Your task to perform on an android device: clear history in the chrome app Image 0: 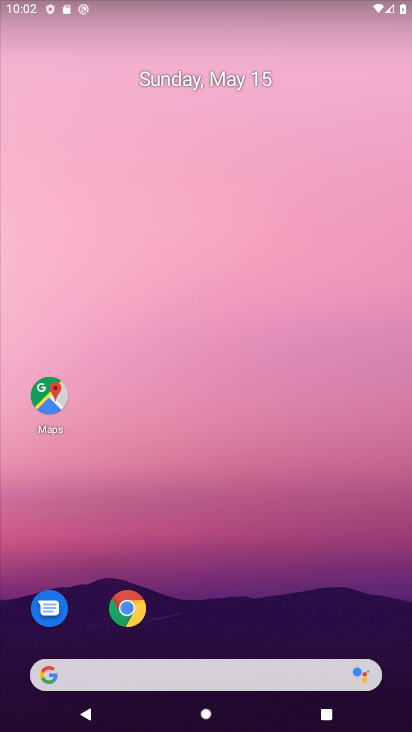
Step 0: click (142, 623)
Your task to perform on an android device: clear history in the chrome app Image 1: 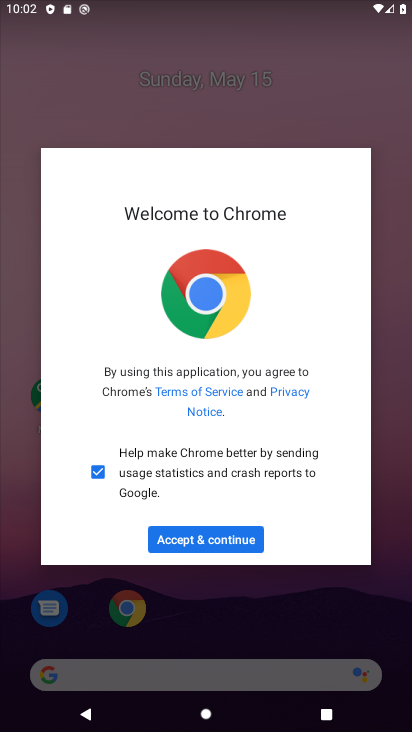
Step 1: click (257, 557)
Your task to perform on an android device: clear history in the chrome app Image 2: 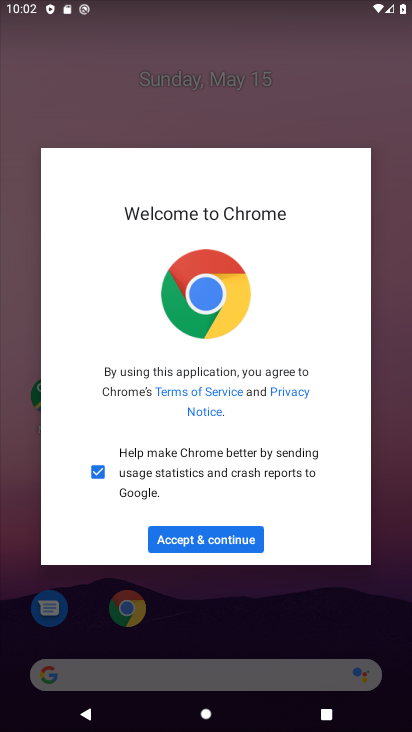
Step 2: click (243, 543)
Your task to perform on an android device: clear history in the chrome app Image 3: 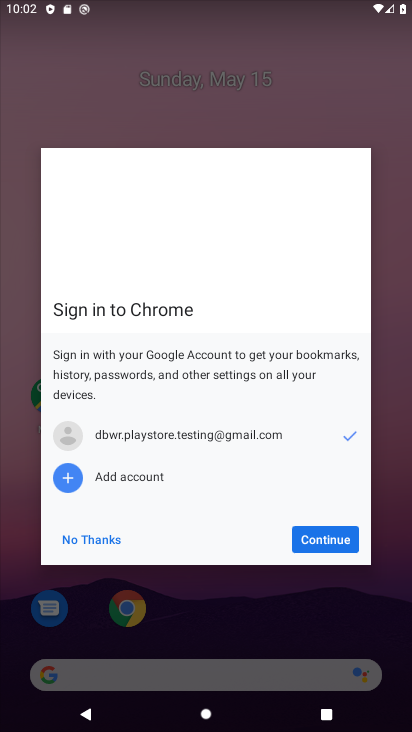
Step 3: click (322, 532)
Your task to perform on an android device: clear history in the chrome app Image 4: 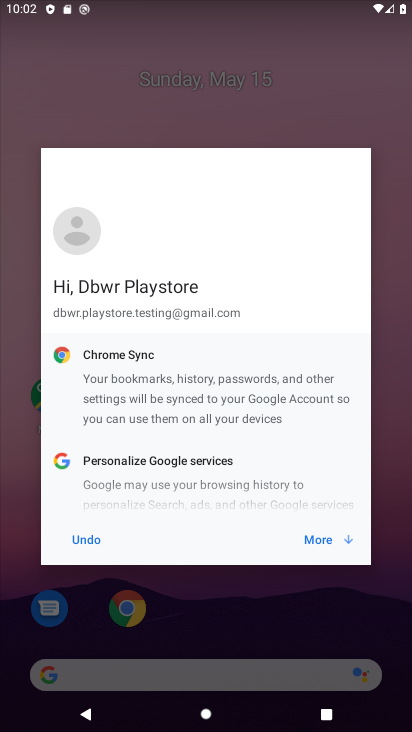
Step 4: click (333, 550)
Your task to perform on an android device: clear history in the chrome app Image 5: 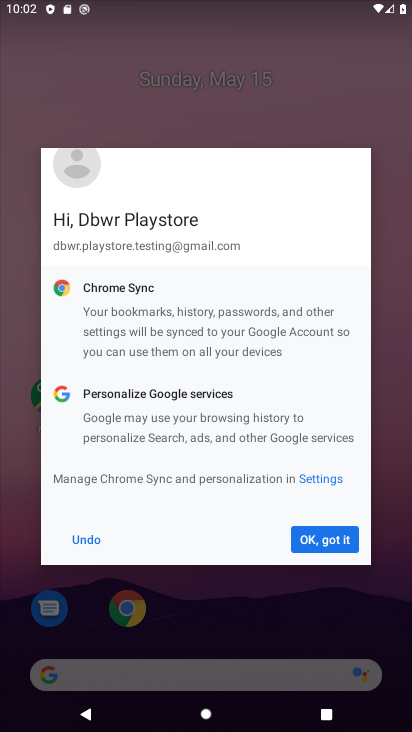
Step 5: click (319, 536)
Your task to perform on an android device: clear history in the chrome app Image 6: 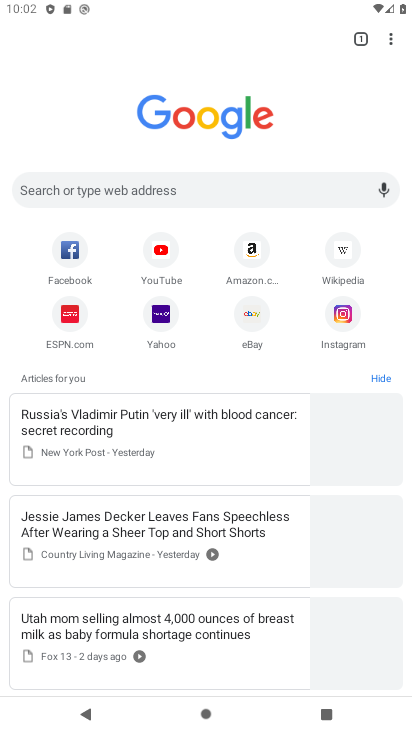
Step 6: drag from (384, 42) to (329, 216)
Your task to perform on an android device: clear history in the chrome app Image 7: 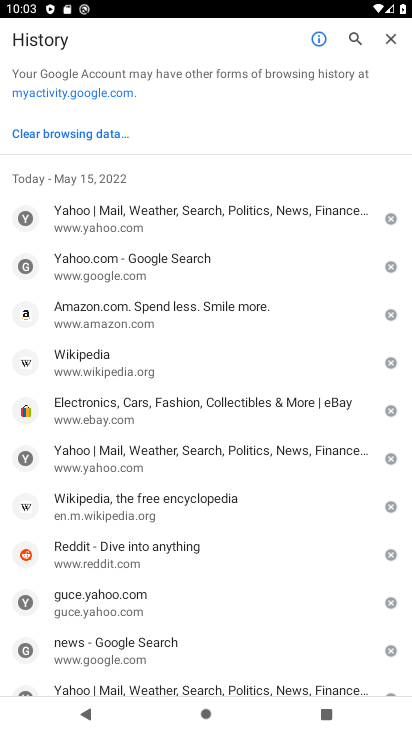
Step 7: click (75, 147)
Your task to perform on an android device: clear history in the chrome app Image 8: 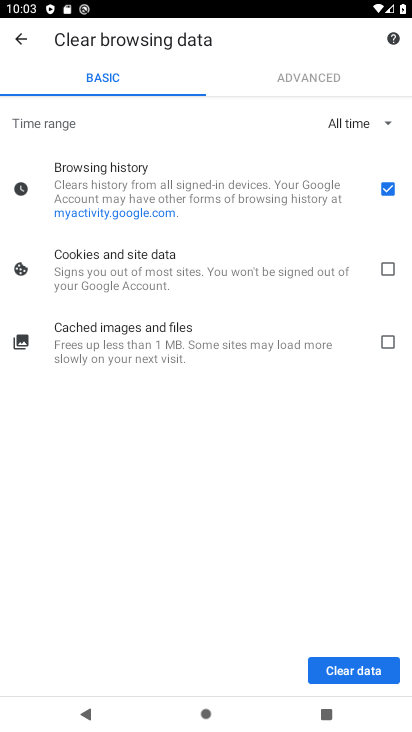
Step 8: click (361, 667)
Your task to perform on an android device: clear history in the chrome app Image 9: 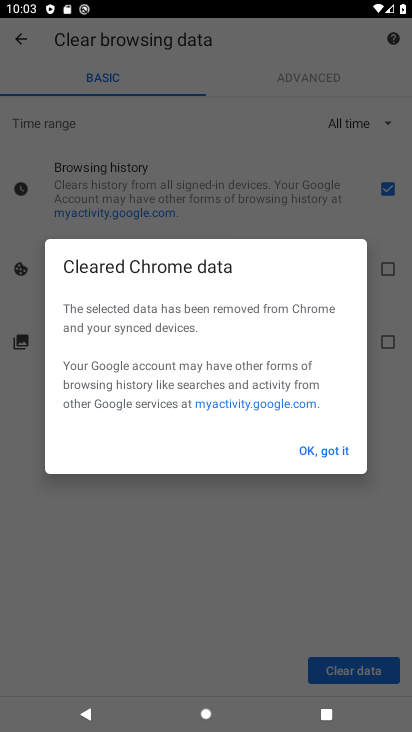
Step 9: click (323, 454)
Your task to perform on an android device: clear history in the chrome app Image 10: 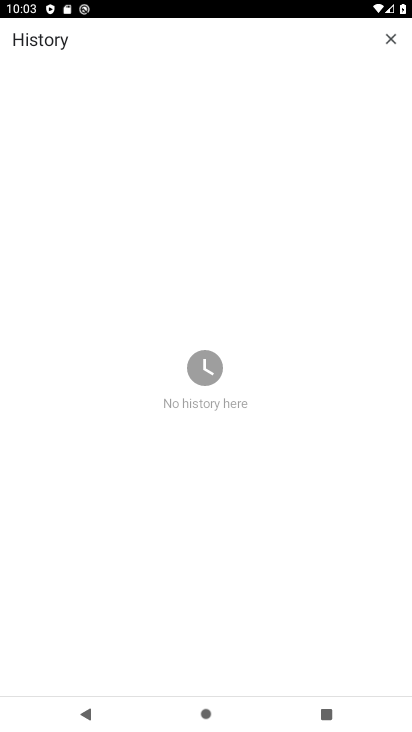
Step 10: task complete